Your task to perform on an android device: add a contact Image 0: 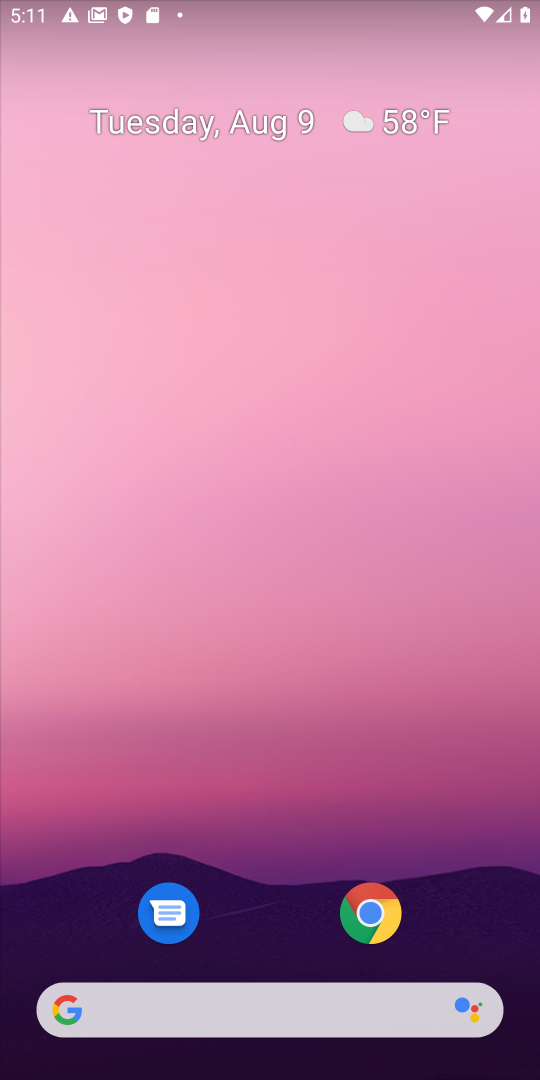
Step 0: drag from (294, 848) to (236, 212)
Your task to perform on an android device: add a contact Image 1: 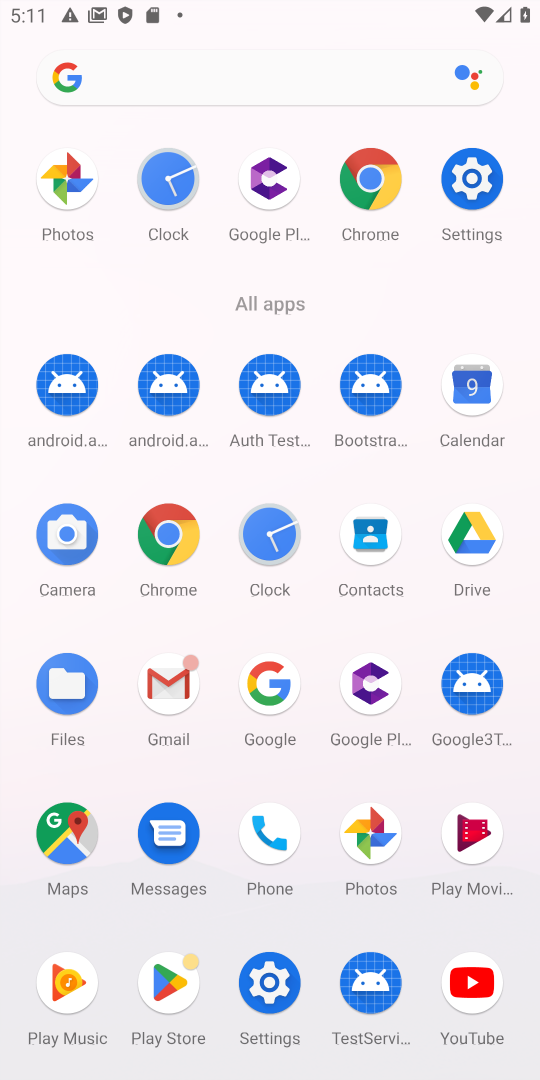
Step 1: click (363, 559)
Your task to perform on an android device: add a contact Image 2: 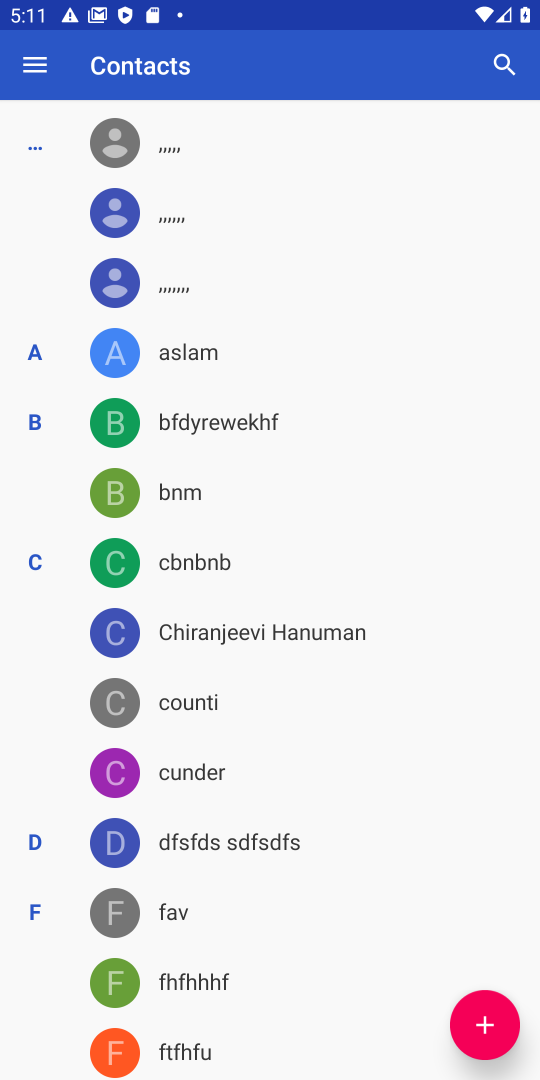
Step 2: click (469, 1015)
Your task to perform on an android device: add a contact Image 3: 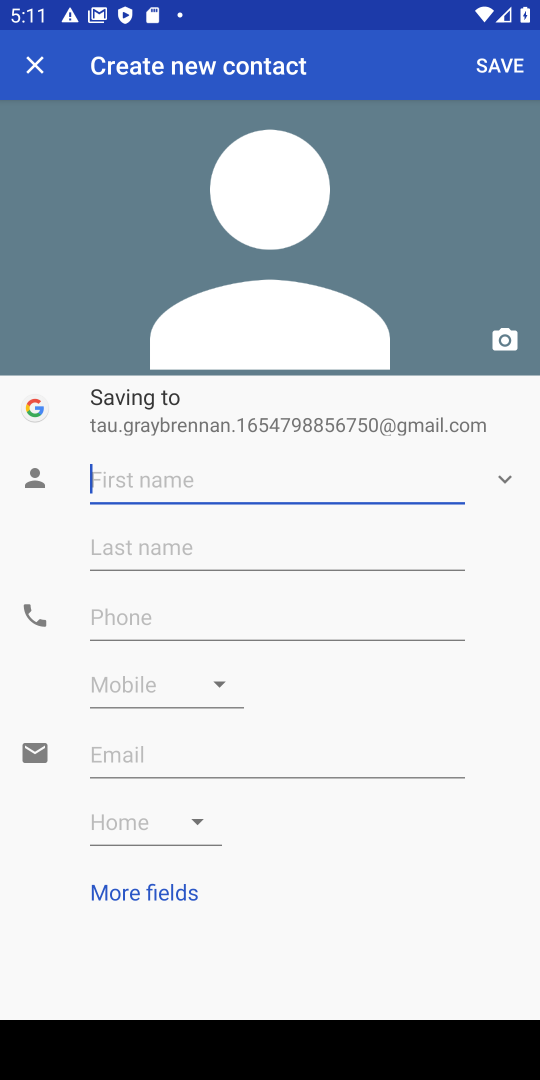
Step 3: type "njkuiohj"
Your task to perform on an android device: add a contact Image 4: 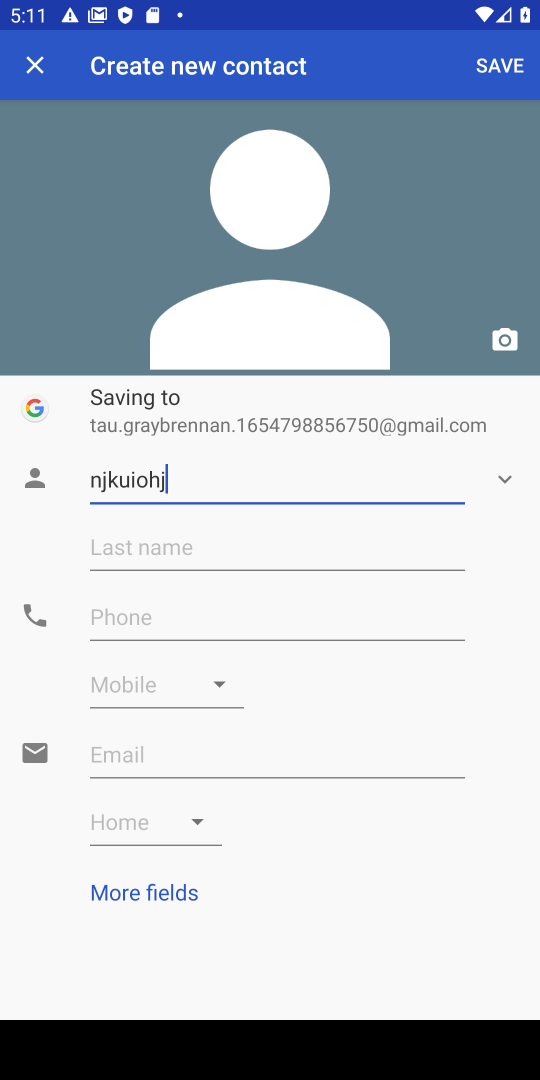
Step 4: click (134, 614)
Your task to perform on an android device: add a contact Image 5: 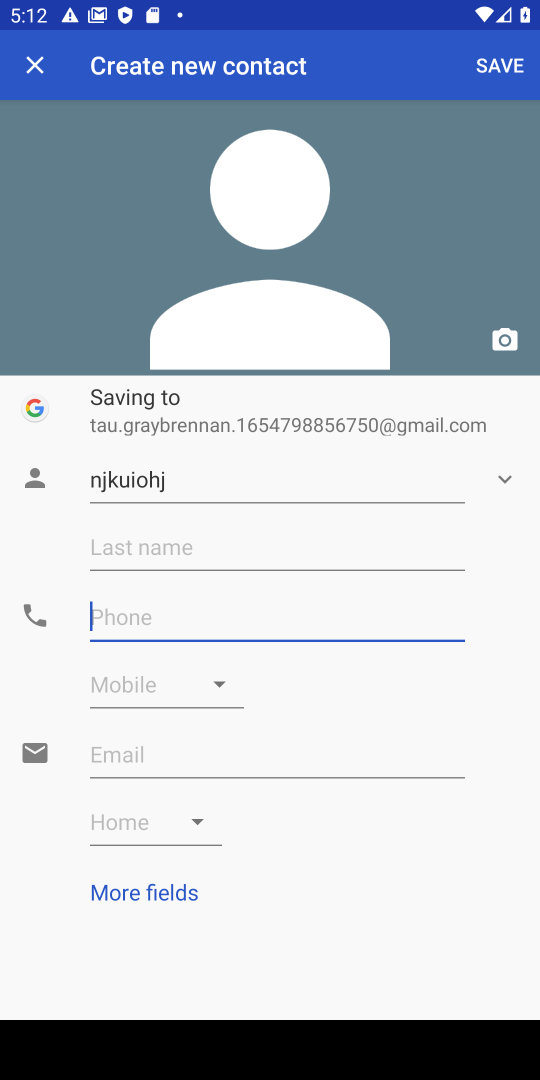
Step 5: type "6788990988"
Your task to perform on an android device: add a contact Image 6: 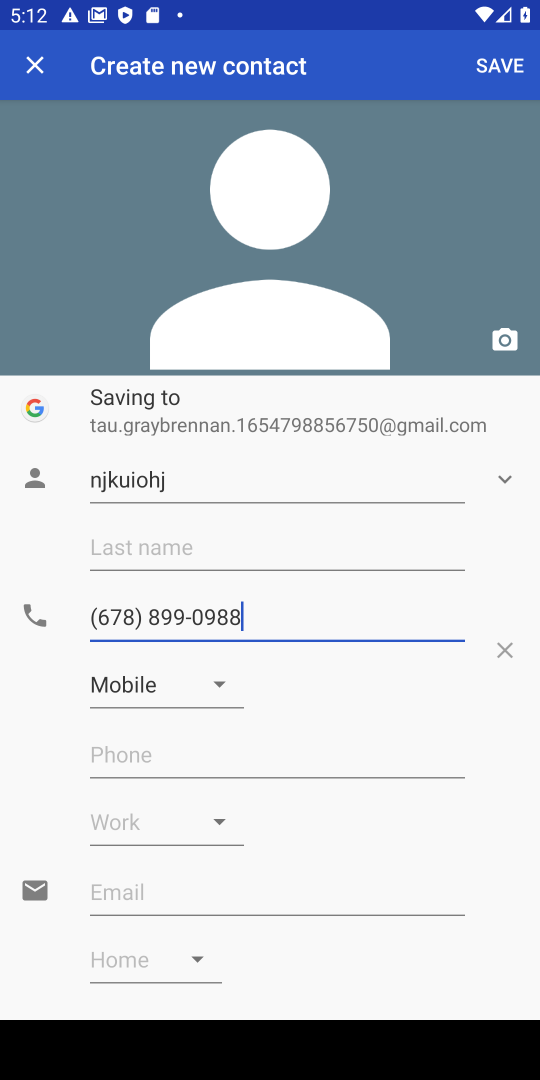
Step 6: click (513, 66)
Your task to perform on an android device: add a contact Image 7: 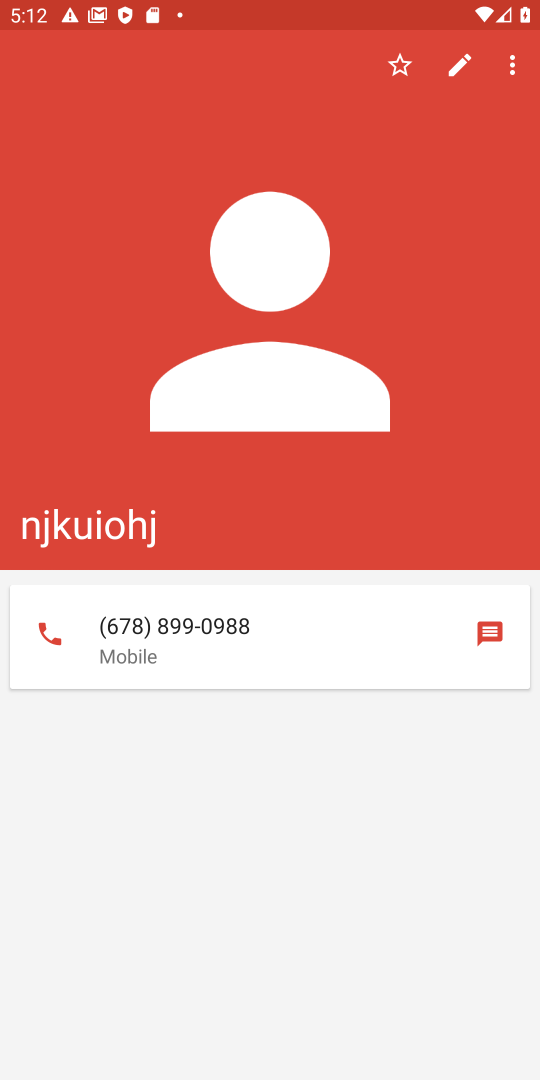
Step 7: task complete